Your task to perform on an android device: When is my next appointment? Image 0: 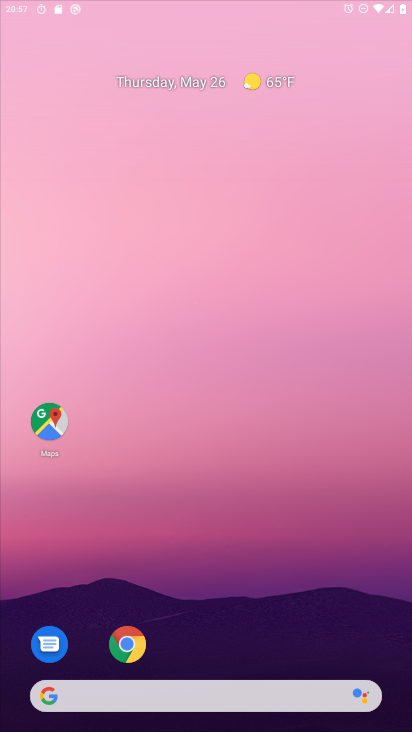
Step 0: drag from (174, 664) to (237, 164)
Your task to perform on an android device: When is my next appointment? Image 1: 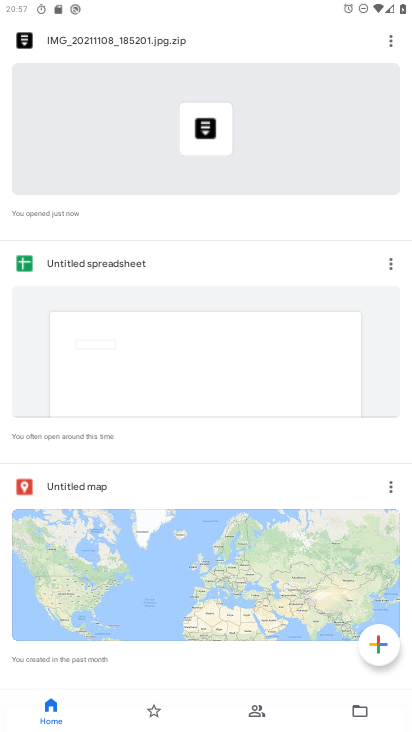
Step 1: drag from (164, 473) to (218, 258)
Your task to perform on an android device: When is my next appointment? Image 2: 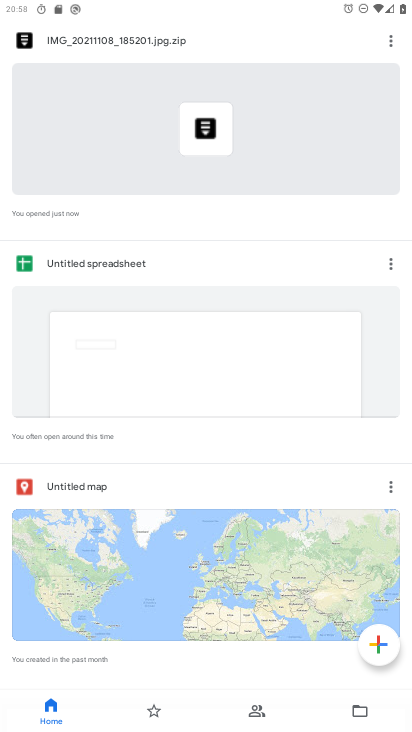
Step 2: drag from (207, 483) to (233, 178)
Your task to perform on an android device: When is my next appointment? Image 3: 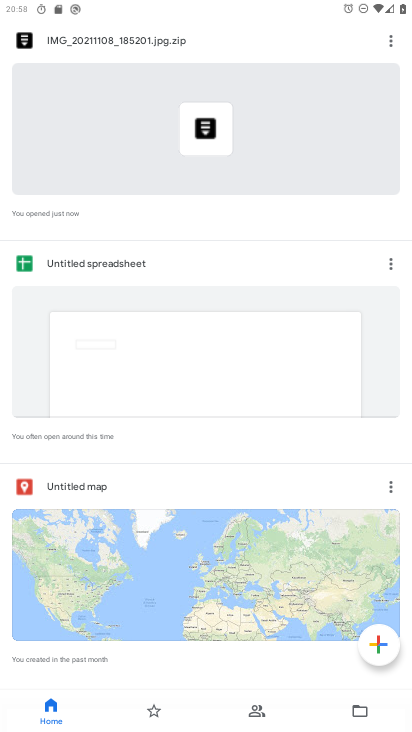
Step 3: drag from (183, 462) to (227, 176)
Your task to perform on an android device: When is my next appointment? Image 4: 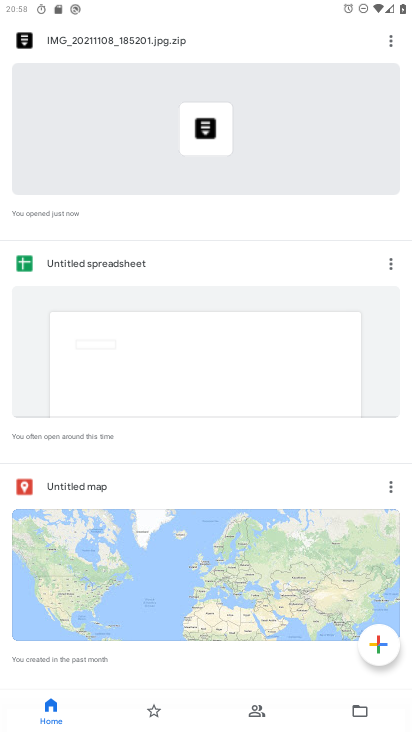
Step 4: drag from (133, 491) to (171, 235)
Your task to perform on an android device: When is my next appointment? Image 5: 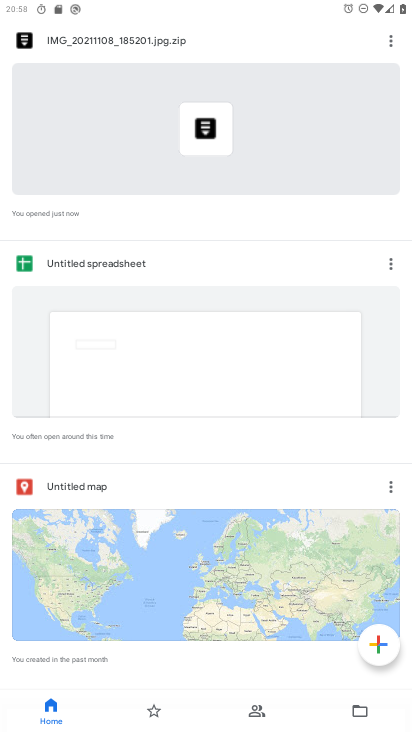
Step 5: drag from (124, 485) to (131, 255)
Your task to perform on an android device: When is my next appointment? Image 6: 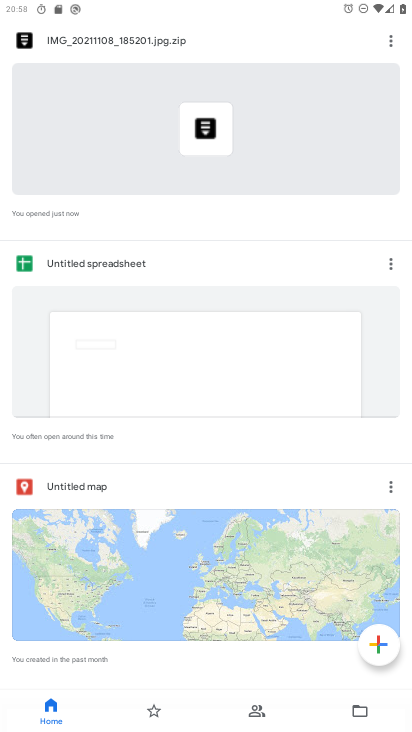
Step 6: drag from (190, 486) to (184, 271)
Your task to perform on an android device: When is my next appointment? Image 7: 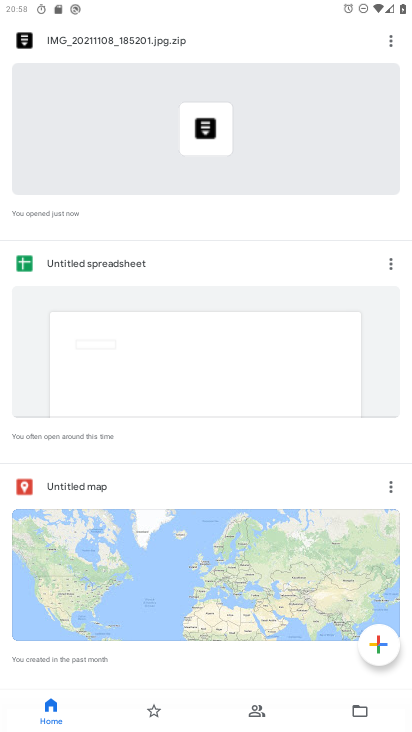
Step 7: drag from (177, 224) to (200, 549)
Your task to perform on an android device: When is my next appointment? Image 8: 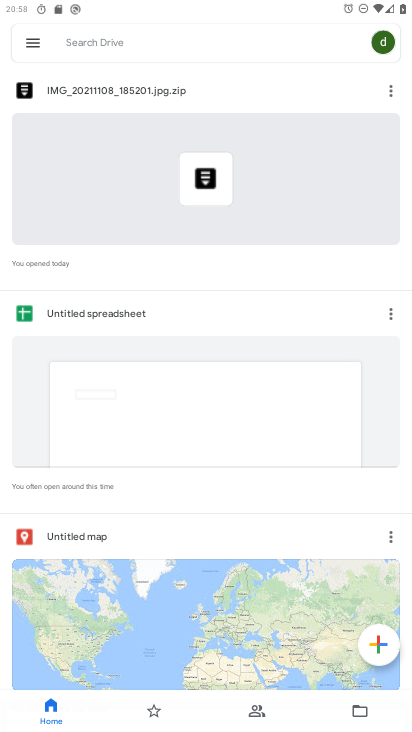
Step 8: drag from (162, 554) to (167, 269)
Your task to perform on an android device: When is my next appointment? Image 9: 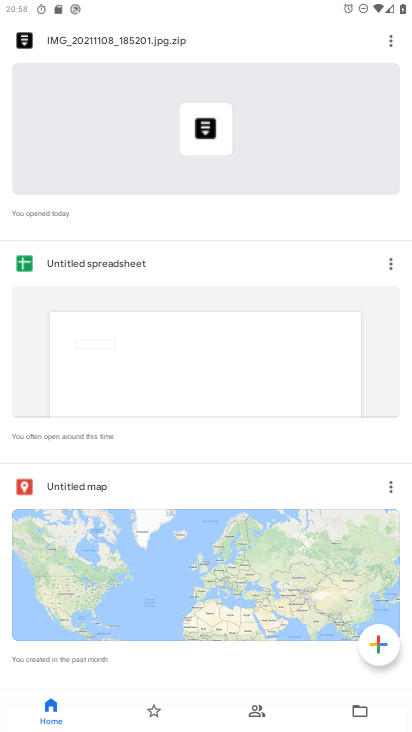
Step 9: drag from (209, 498) to (301, 695)
Your task to perform on an android device: When is my next appointment? Image 10: 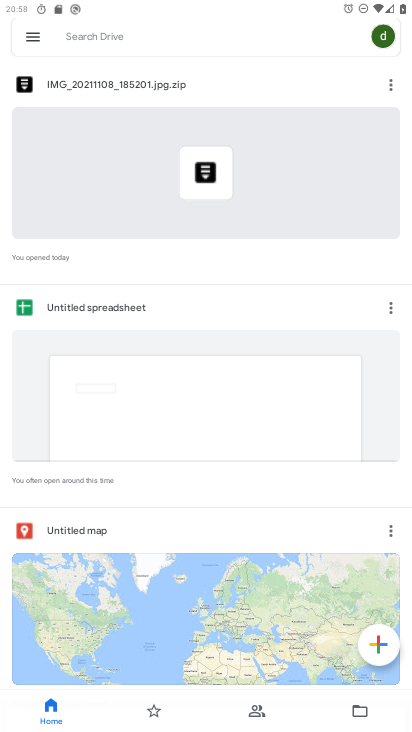
Step 10: press home button
Your task to perform on an android device: When is my next appointment? Image 11: 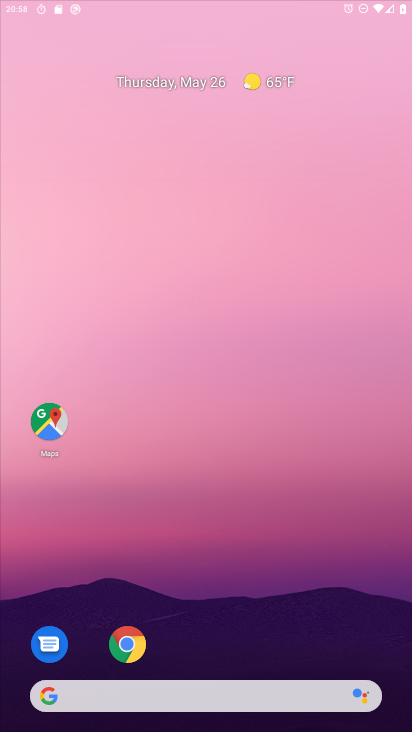
Step 11: drag from (200, 562) to (221, 201)
Your task to perform on an android device: When is my next appointment? Image 12: 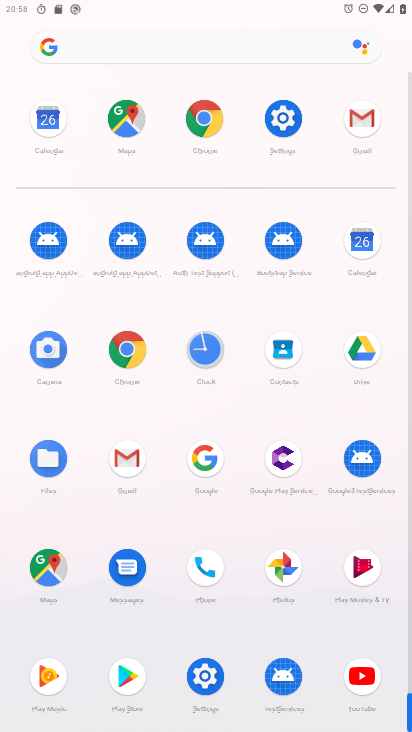
Step 12: drag from (259, 640) to (252, 480)
Your task to perform on an android device: When is my next appointment? Image 13: 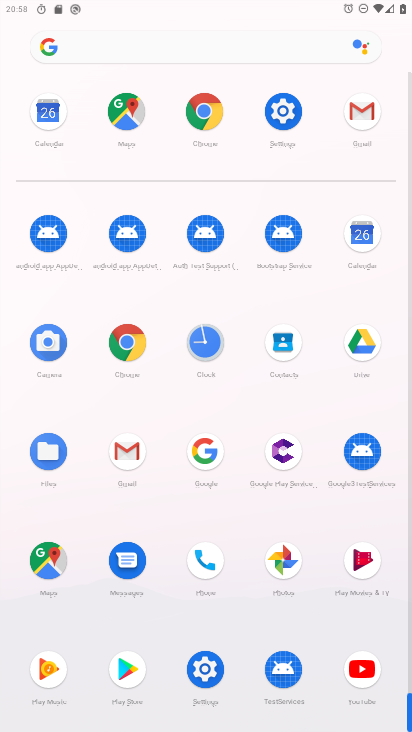
Step 13: click (356, 245)
Your task to perform on an android device: When is my next appointment? Image 14: 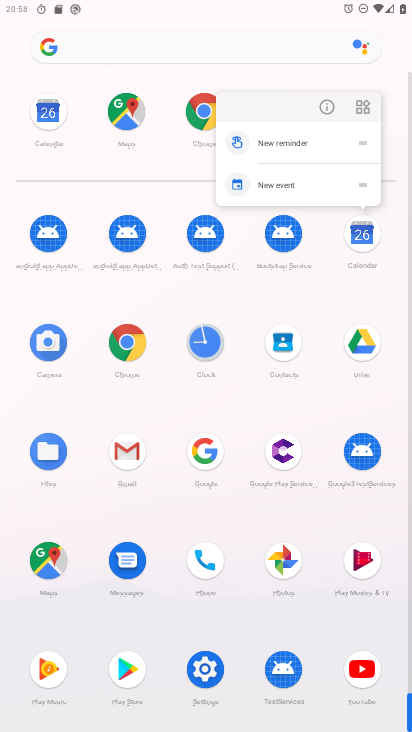
Step 14: click (317, 111)
Your task to perform on an android device: When is my next appointment? Image 15: 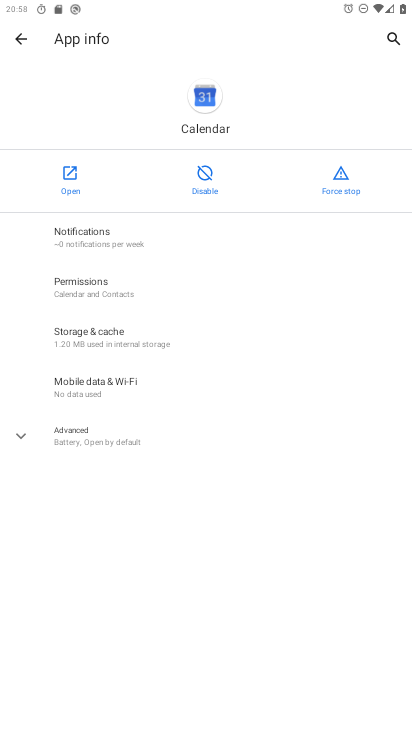
Step 15: click (70, 165)
Your task to perform on an android device: When is my next appointment? Image 16: 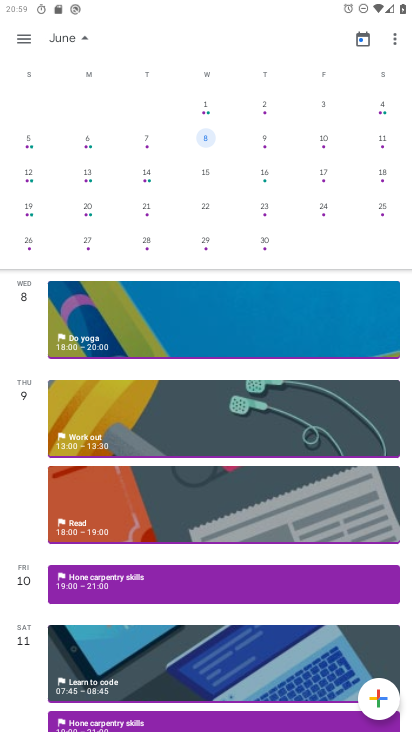
Step 16: drag from (46, 207) to (394, 186)
Your task to perform on an android device: When is my next appointment? Image 17: 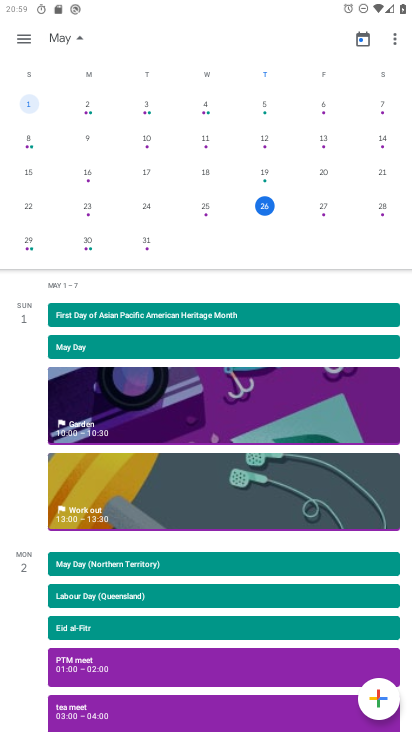
Step 17: click (267, 204)
Your task to perform on an android device: When is my next appointment? Image 18: 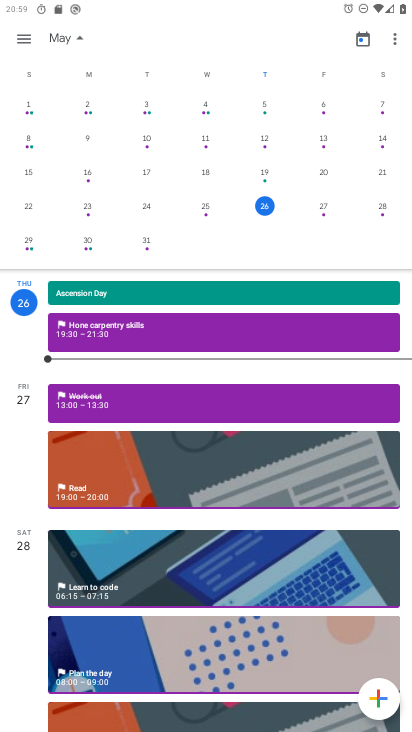
Step 18: task complete